Your task to perform on an android device: turn on priority inbox in the gmail app Image 0: 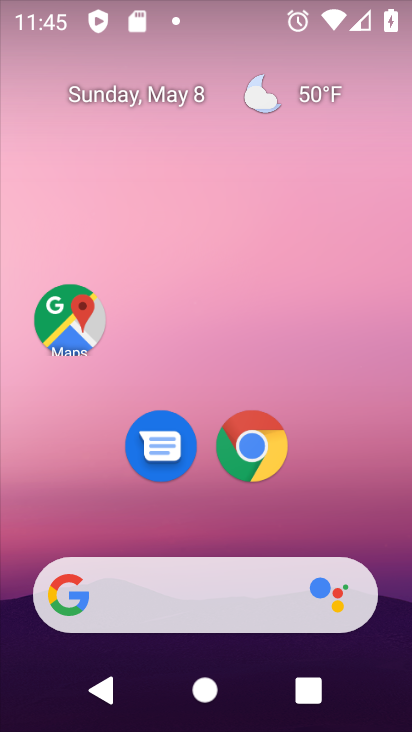
Step 0: drag from (300, 532) to (363, 1)
Your task to perform on an android device: turn on priority inbox in the gmail app Image 1: 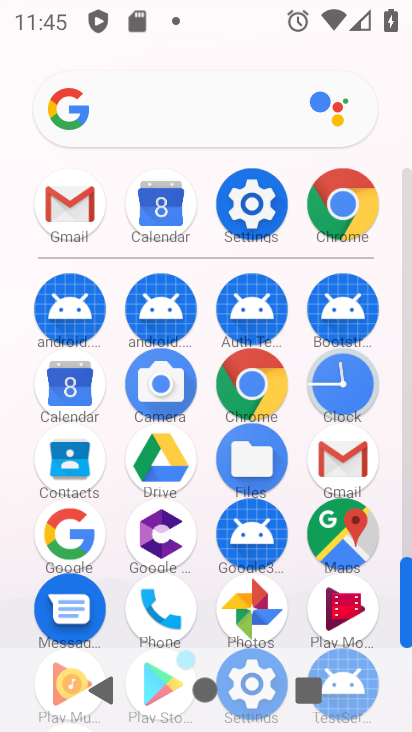
Step 1: click (333, 450)
Your task to perform on an android device: turn on priority inbox in the gmail app Image 2: 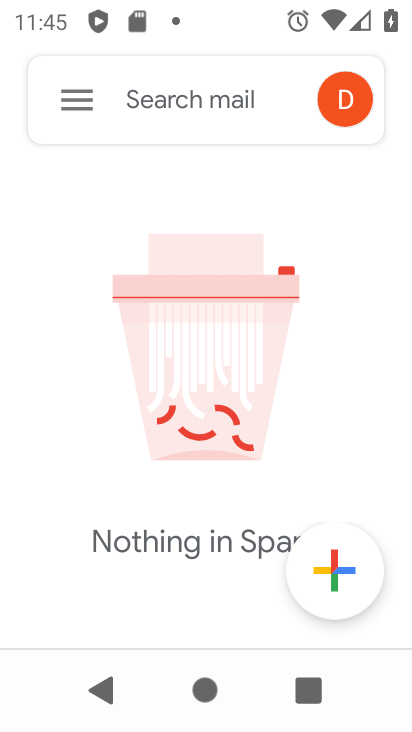
Step 2: click (87, 99)
Your task to perform on an android device: turn on priority inbox in the gmail app Image 3: 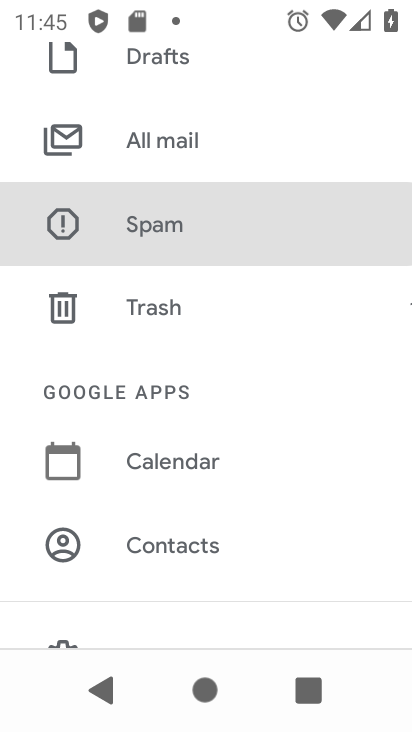
Step 3: drag from (164, 576) to (196, 157)
Your task to perform on an android device: turn on priority inbox in the gmail app Image 4: 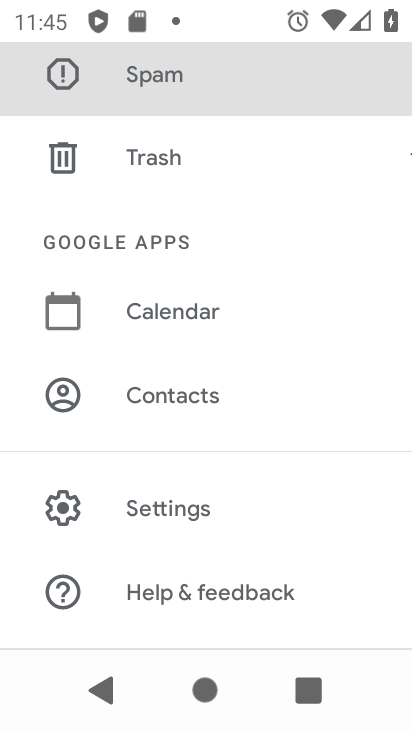
Step 4: click (160, 519)
Your task to perform on an android device: turn on priority inbox in the gmail app Image 5: 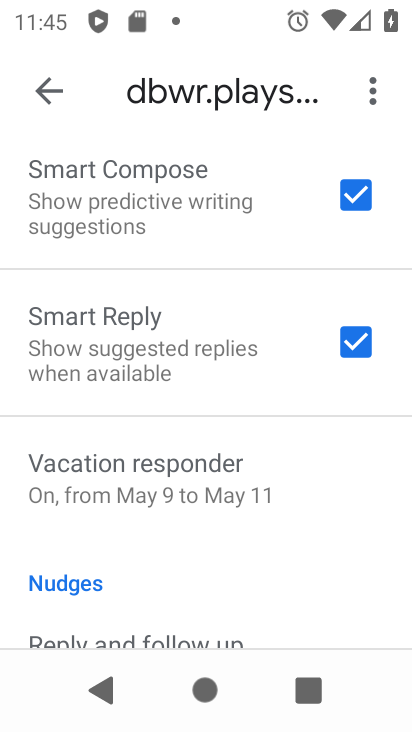
Step 5: drag from (197, 442) to (263, 596)
Your task to perform on an android device: turn on priority inbox in the gmail app Image 6: 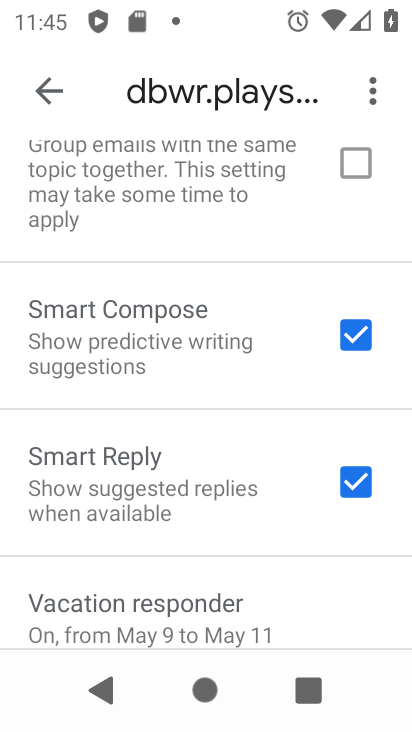
Step 6: drag from (205, 429) to (253, 552)
Your task to perform on an android device: turn on priority inbox in the gmail app Image 7: 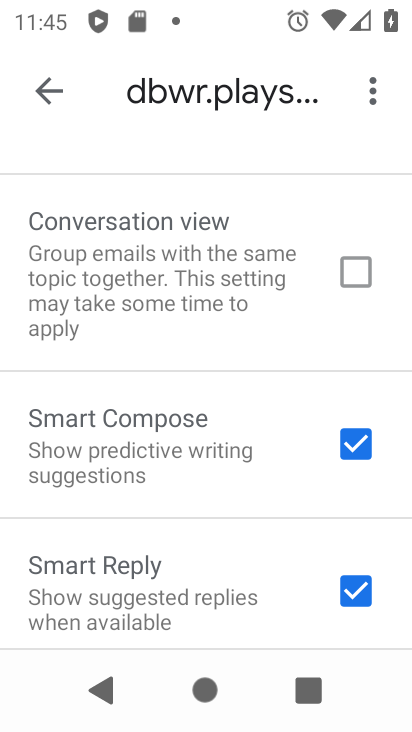
Step 7: drag from (230, 445) to (264, 542)
Your task to perform on an android device: turn on priority inbox in the gmail app Image 8: 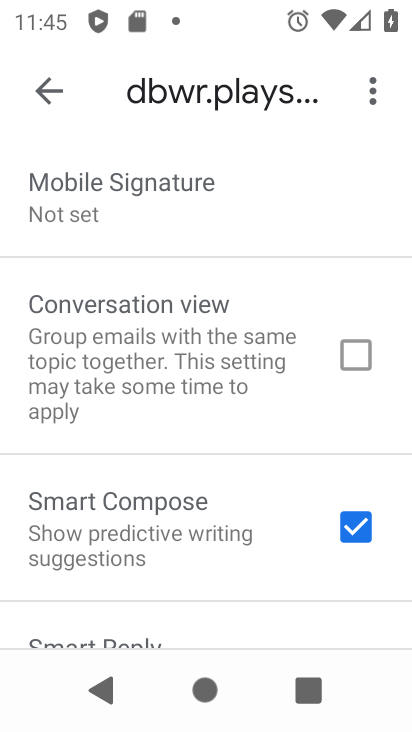
Step 8: drag from (225, 413) to (275, 544)
Your task to perform on an android device: turn on priority inbox in the gmail app Image 9: 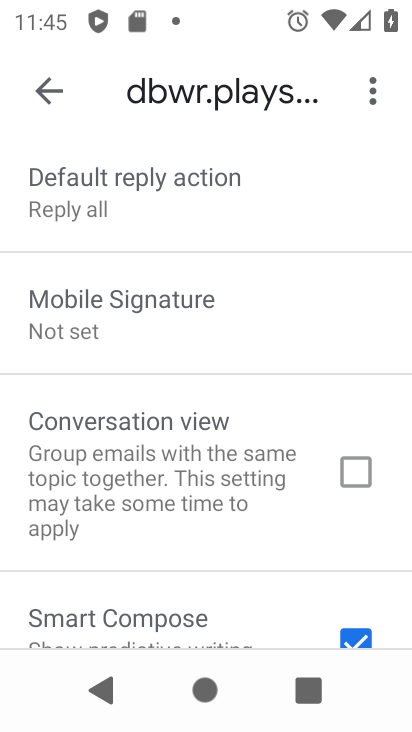
Step 9: drag from (214, 407) to (252, 518)
Your task to perform on an android device: turn on priority inbox in the gmail app Image 10: 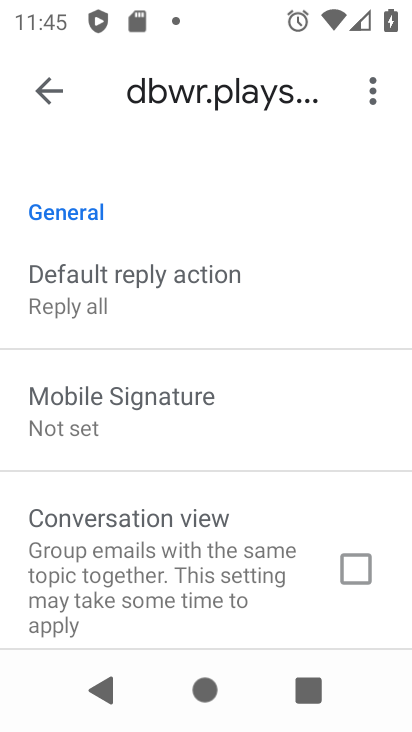
Step 10: drag from (214, 412) to (259, 525)
Your task to perform on an android device: turn on priority inbox in the gmail app Image 11: 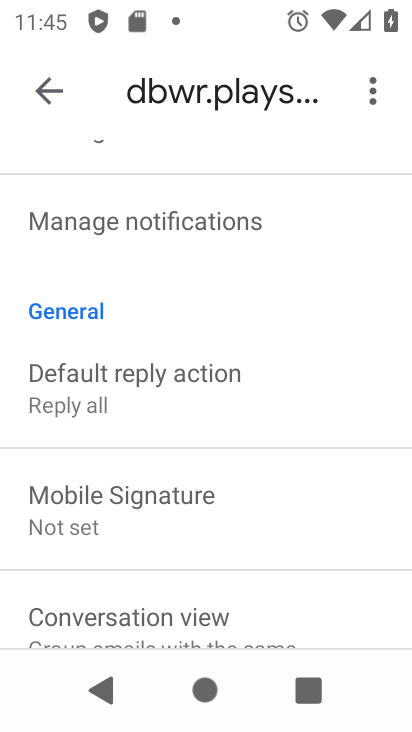
Step 11: drag from (185, 349) to (238, 471)
Your task to perform on an android device: turn on priority inbox in the gmail app Image 12: 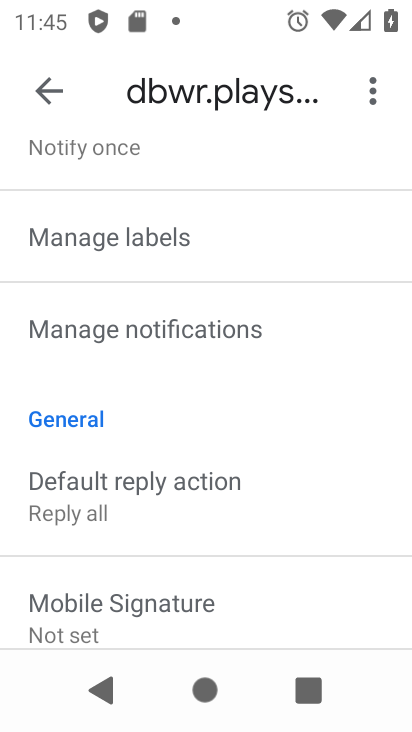
Step 12: drag from (205, 345) to (262, 510)
Your task to perform on an android device: turn on priority inbox in the gmail app Image 13: 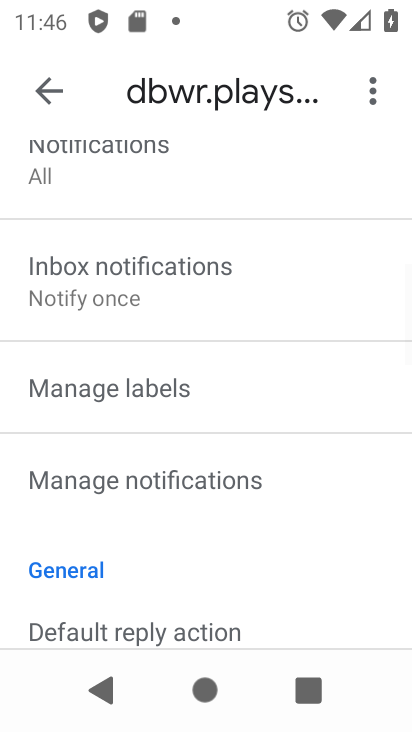
Step 13: drag from (235, 374) to (280, 488)
Your task to perform on an android device: turn on priority inbox in the gmail app Image 14: 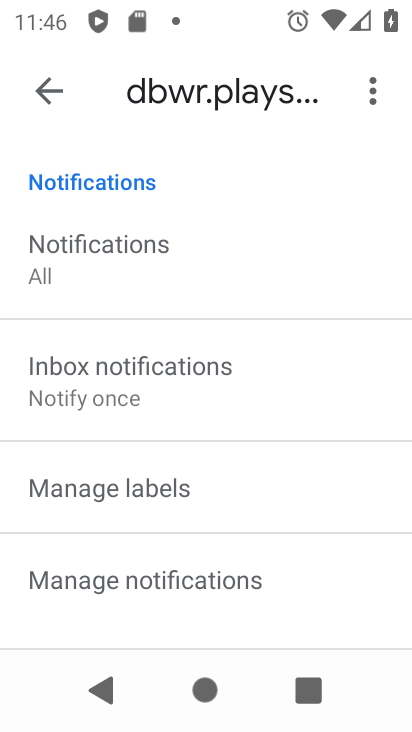
Step 14: drag from (220, 363) to (285, 550)
Your task to perform on an android device: turn on priority inbox in the gmail app Image 15: 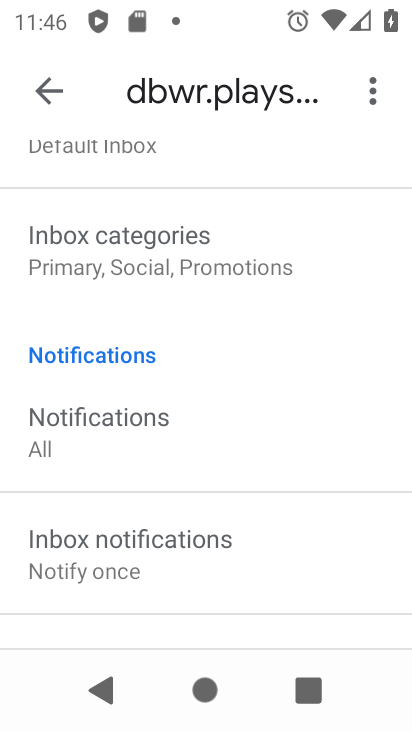
Step 15: drag from (214, 334) to (276, 501)
Your task to perform on an android device: turn on priority inbox in the gmail app Image 16: 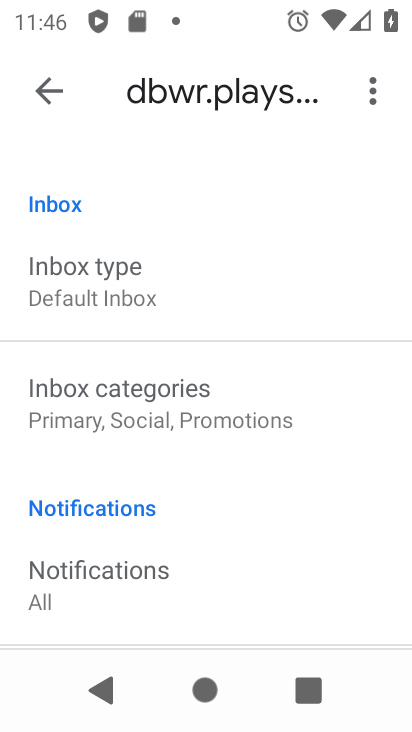
Step 16: click (240, 307)
Your task to perform on an android device: turn on priority inbox in the gmail app Image 17: 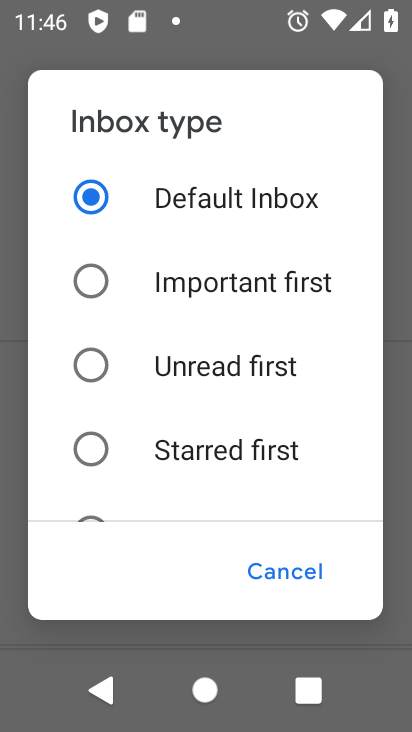
Step 17: drag from (240, 475) to (252, 198)
Your task to perform on an android device: turn on priority inbox in the gmail app Image 18: 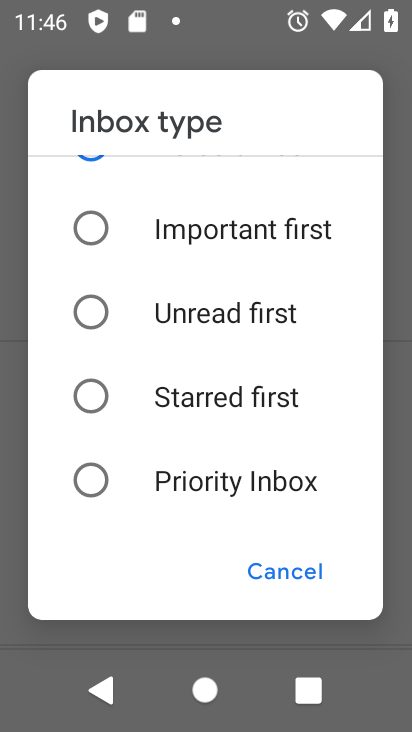
Step 18: click (193, 496)
Your task to perform on an android device: turn on priority inbox in the gmail app Image 19: 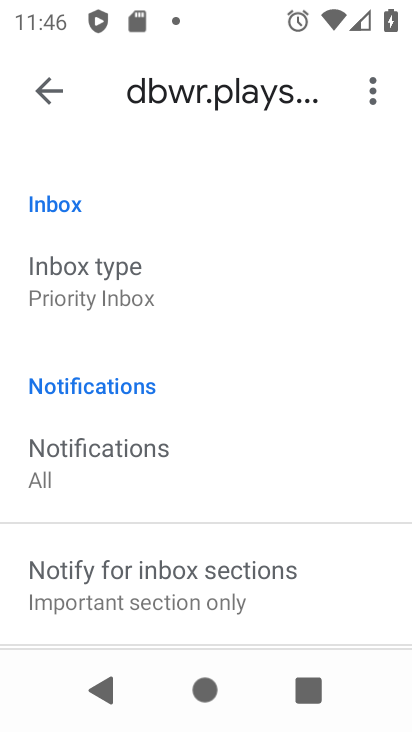
Step 19: task complete